Your task to perform on an android device: add a contact in the contacts app Image 0: 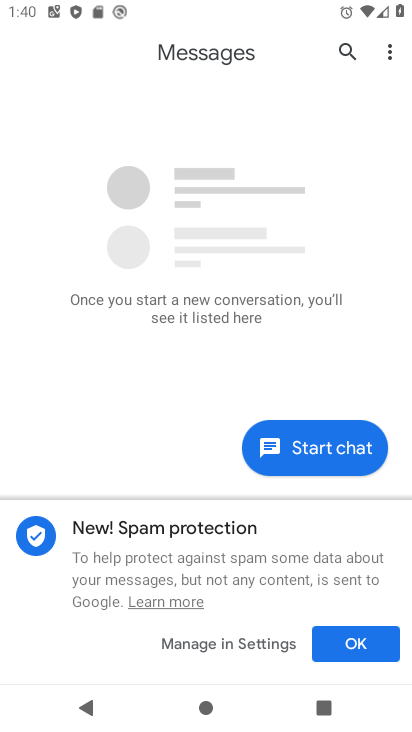
Step 0: press home button
Your task to perform on an android device: add a contact in the contacts app Image 1: 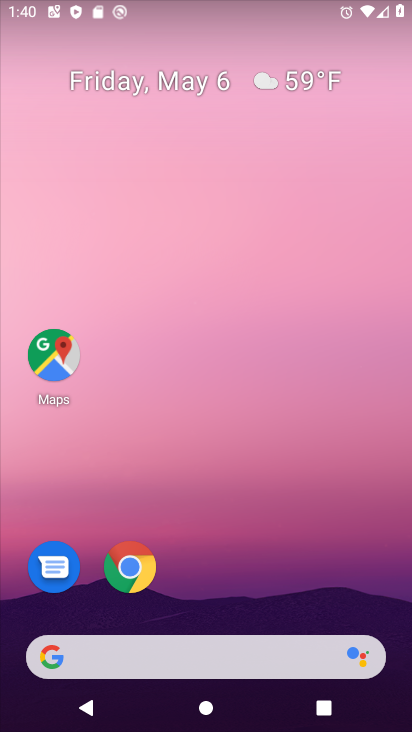
Step 1: drag from (295, 585) to (248, 134)
Your task to perform on an android device: add a contact in the contacts app Image 2: 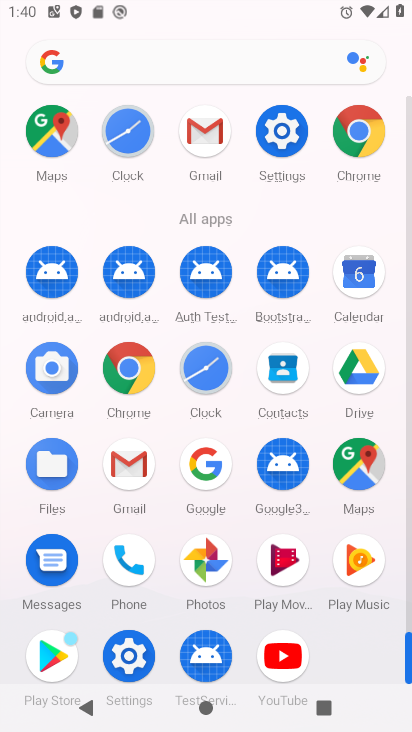
Step 2: click (289, 377)
Your task to perform on an android device: add a contact in the contacts app Image 3: 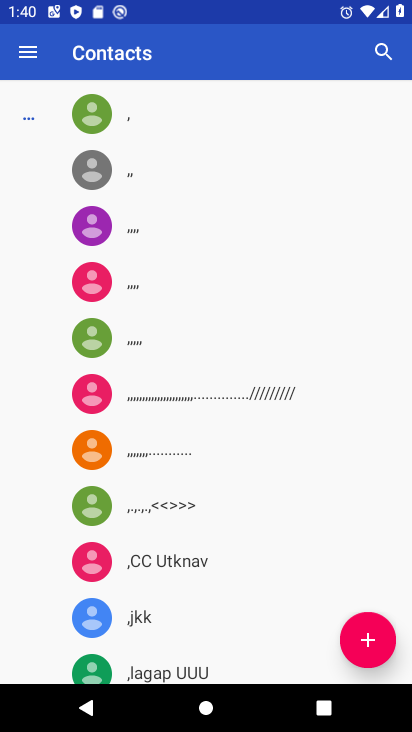
Step 3: click (358, 635)
Your task to perform on an android device: add a contact in the contacts app Image 4: 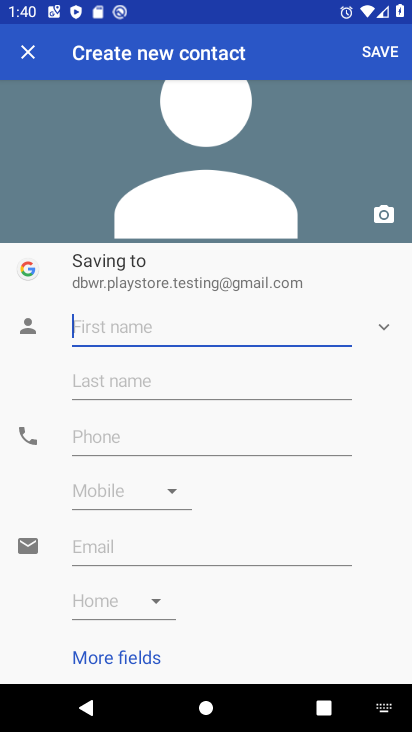
Step 4: type "rynbdg"
Your task to perform on an android device: add a contact in the contacts app Image 5: 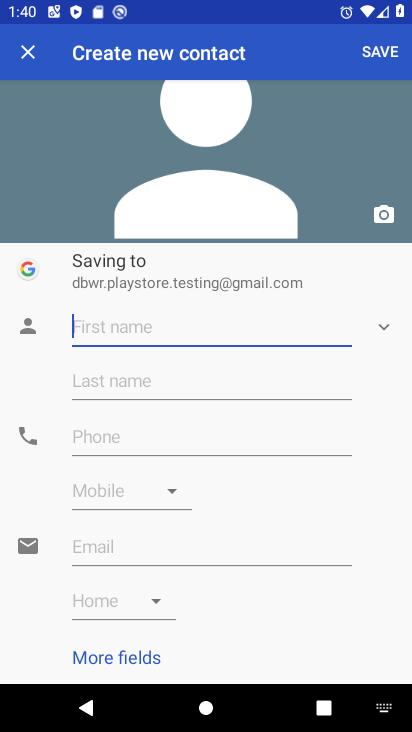
Step 5: click (247, 537)
Your task to perform on an android device: add a contact in the contacts app Image 6: 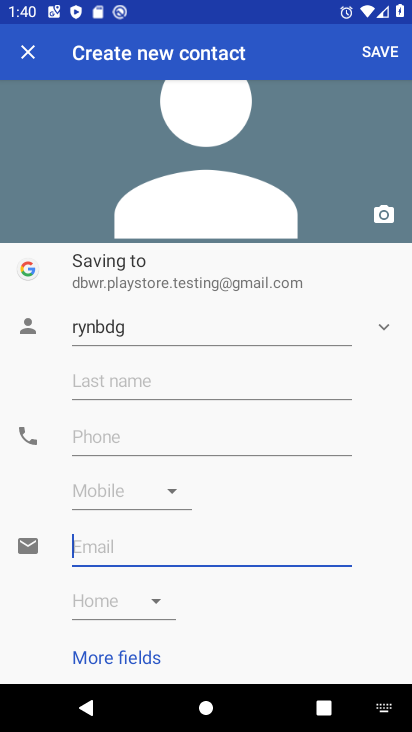
Step 6: click (240, 444)
Your task to perform on an android device: add a contact in the contacts app Image 7: 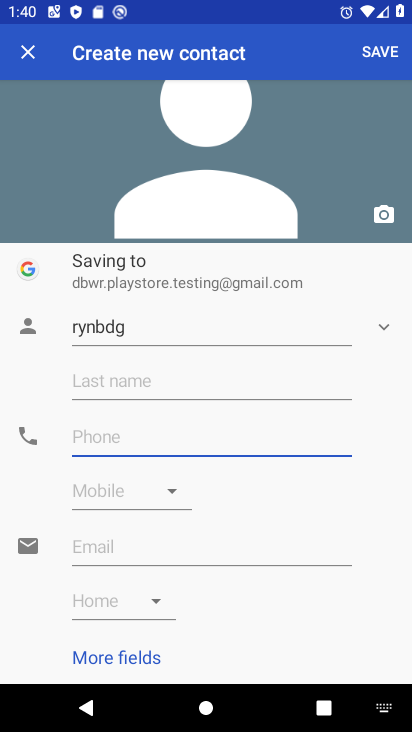
Step 7: type "1234567898"
Your task to perform on an android device: add a contact in the contacts app Image 8: 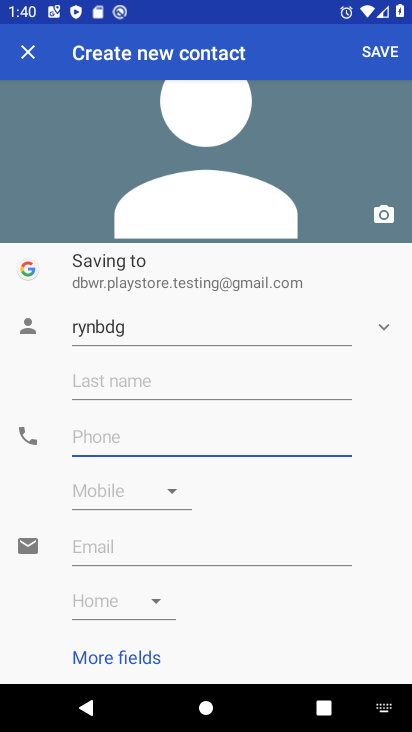
Step 8: click (391, 60)
Your task to perform on an android device: add a contact in the contacts app Image 9: 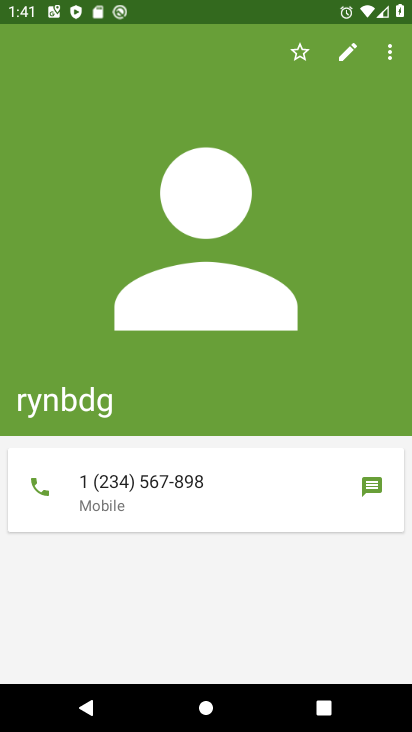
Step 9: task complete